Your task to perform on an android device: empty trash in the gmail app Image 0: 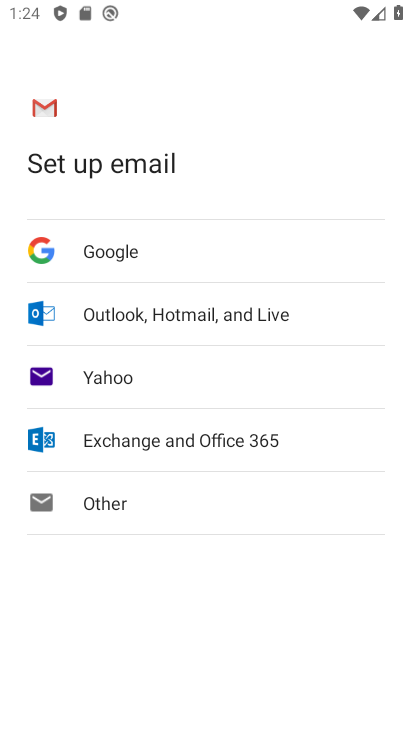
Step 0: press home button
Your task to perform on an android device: empty trash in the gmail app Image 1: 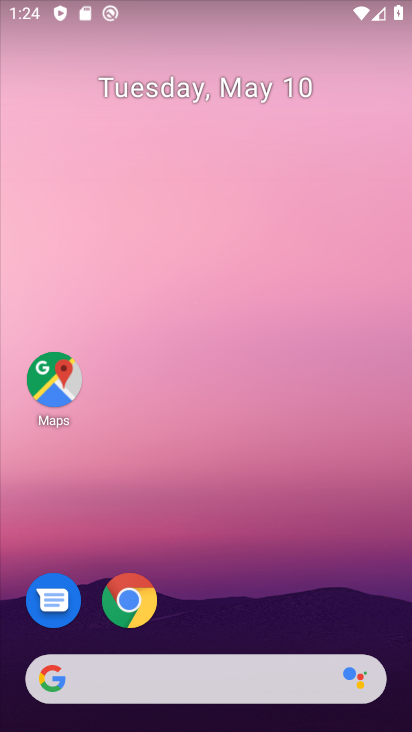
Step 1: drag from (238, 514) to (293, 113)
Your task to perform on an android device: empty trash in the gmail app Image 2: 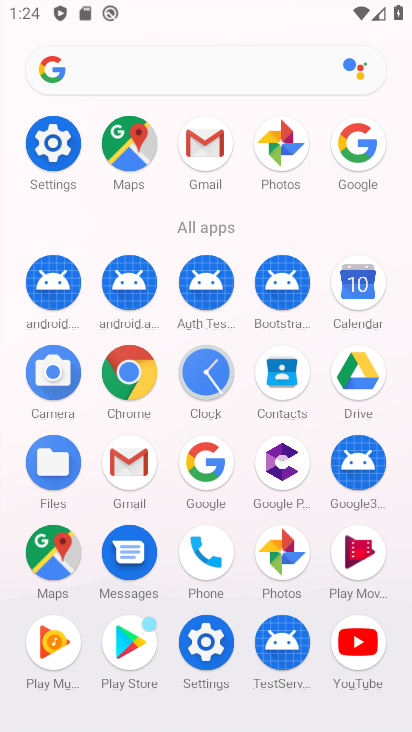
Step 2: click (202, 145)
Your task to perform on an android device: empty trash in the gmail app Image 3: 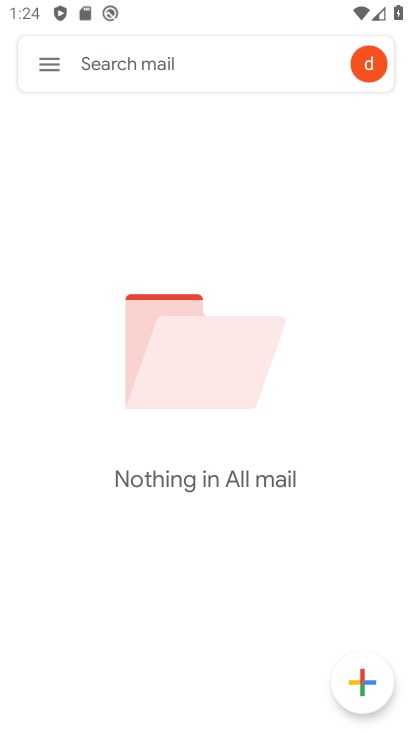
Step 3: click (47, 62)
Your task to perform on an android device: empty trash in the gmail app Image 4: 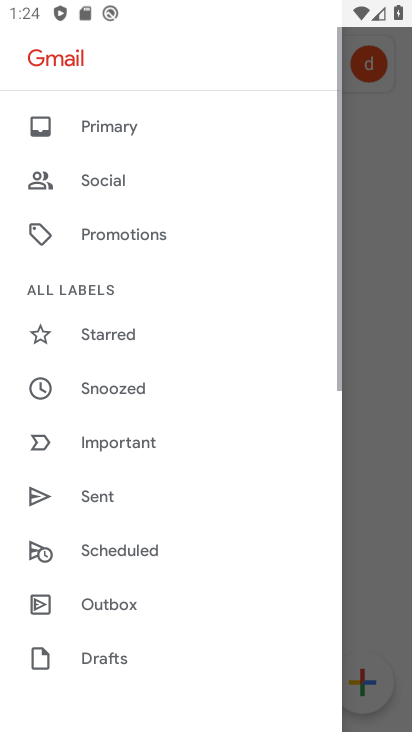
Step 4: drag from (186, 579) to (245, 55)
Your task to perform on an android device: empty trash in the gmail app Image 5: 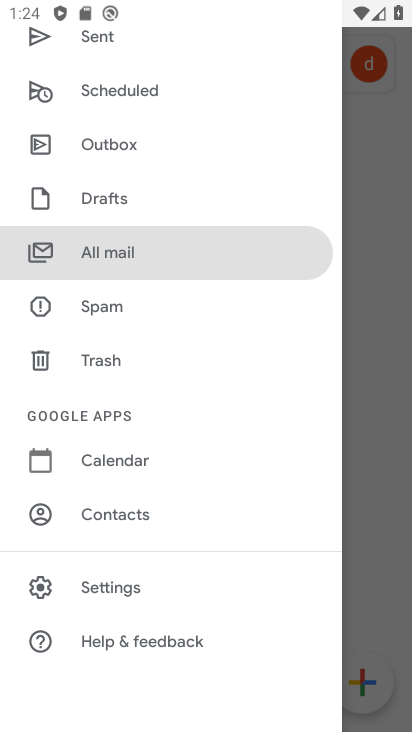
Step 5: click (105, 355)
Your task to perform on an android device: empty trash in the gmail app Image 6: 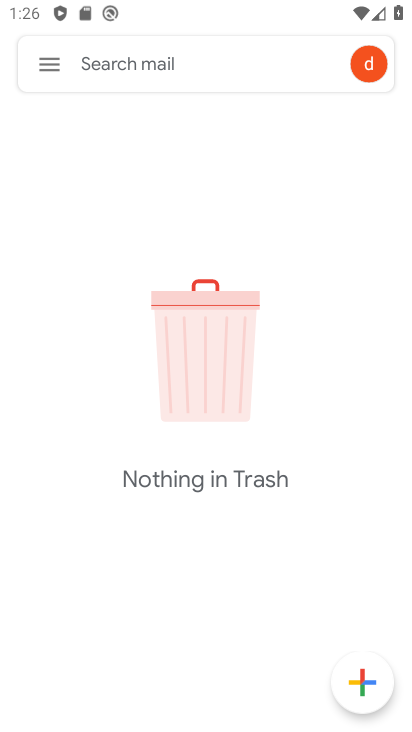
Step 6: task complete